Your task to perform on an android device: turn off priority inbox in the gmail app Image 0: 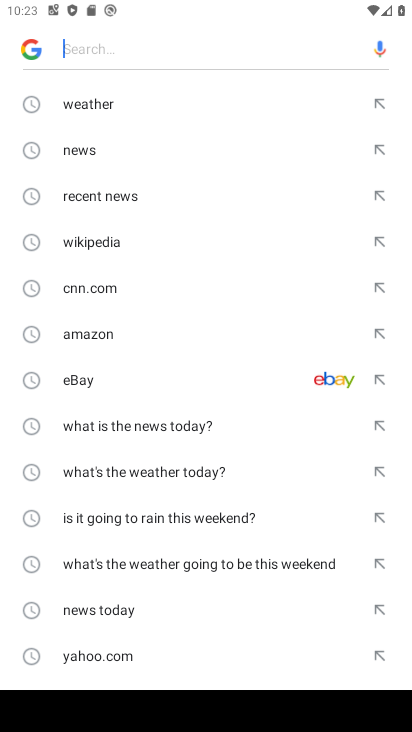
Step 0: press home button
Your task to perform on an android device: turn off priority inbox in the gmail app Image 1: 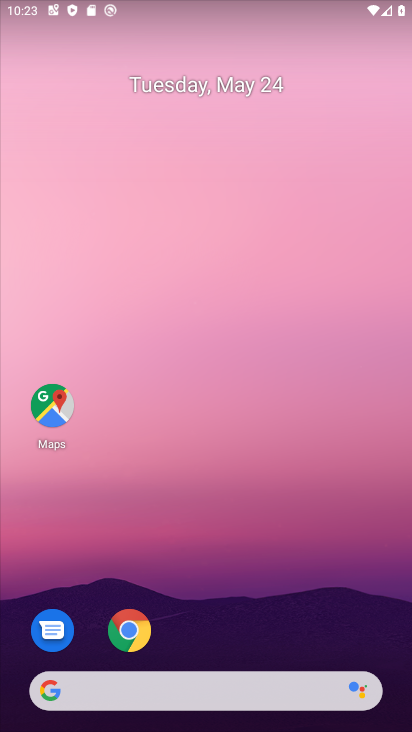
Step 1: drag from (219, 660) to (246, 70)
Your task to perform on an android device: turn off priority inbox in the gmail app Image 2: 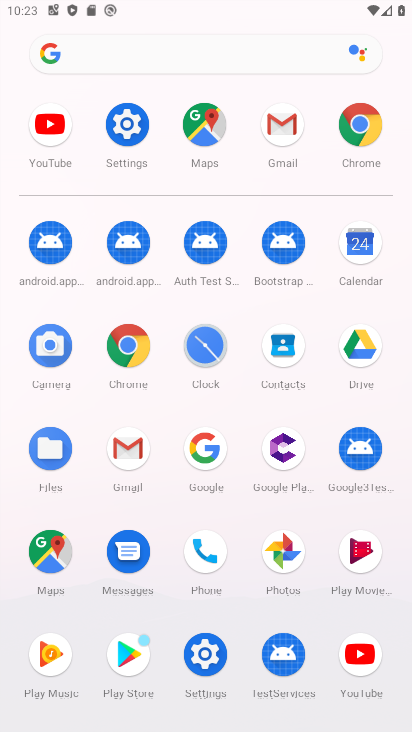
Step 2: click (279, 118)
Your task to perform on an android device: turn off priority inbox in the gmail app Image 3: 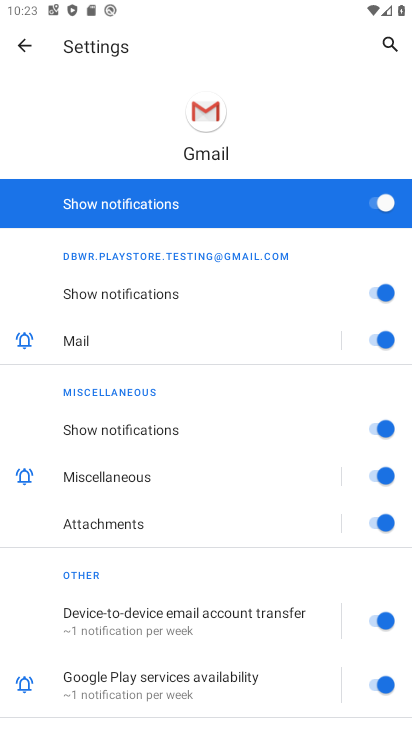
Step 3: click (28, 49)
Your task to perform on an android device: turn off priority inbox in the gmail app Image 4: 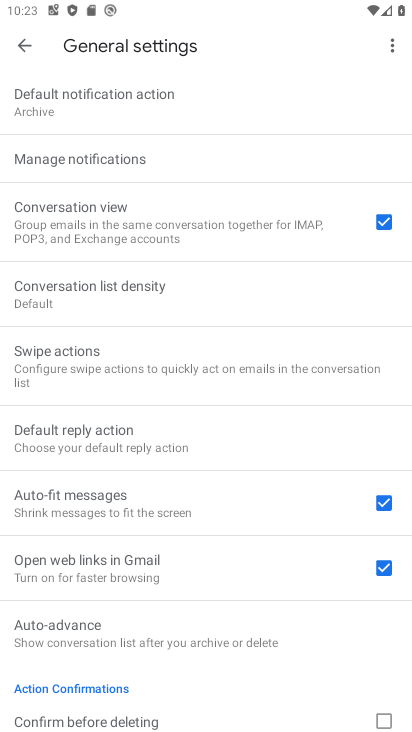
Step 4: click (28, 42)
Your task to perform on an android device: turn off priority inbox in the gmail app Image 5: 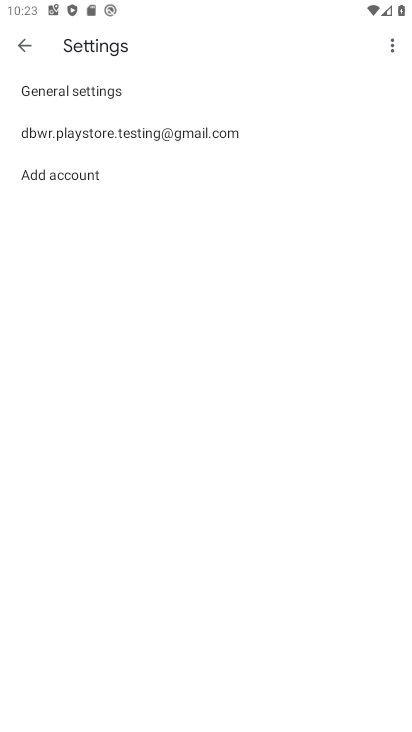
Step 5: click (236, 129)
Your task to perform on an android device: turn off priority inbox in the gmail app Image 6: 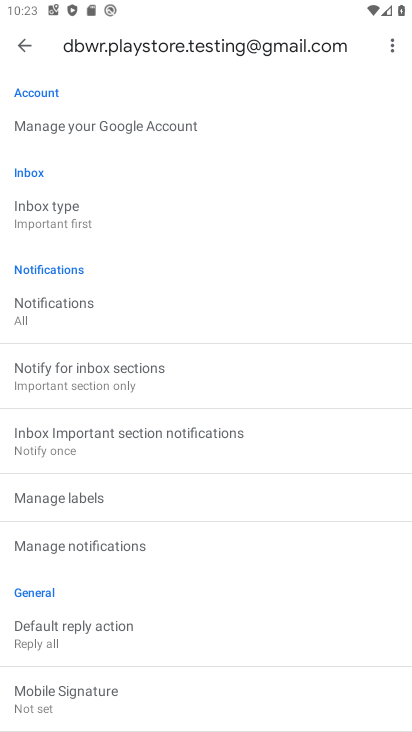
Step 6: click (93, 213)
Your task to perform on an android device: turn off priority inbox in the gmail app Image 7: 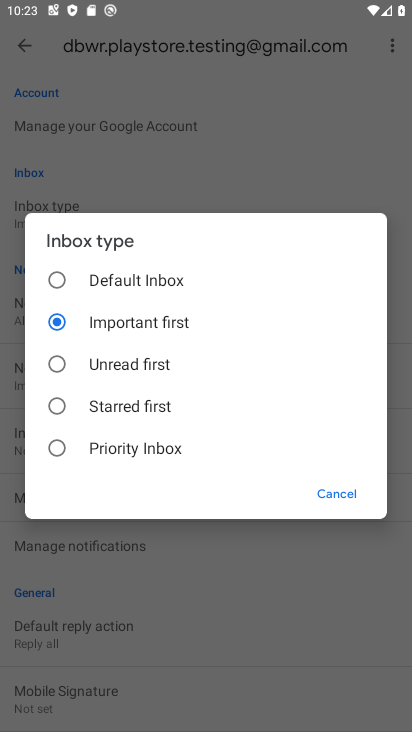
Step 7: click (58, 274)
Your task to perform on an android device: turn off priority inbox in the gmail app Image 8: 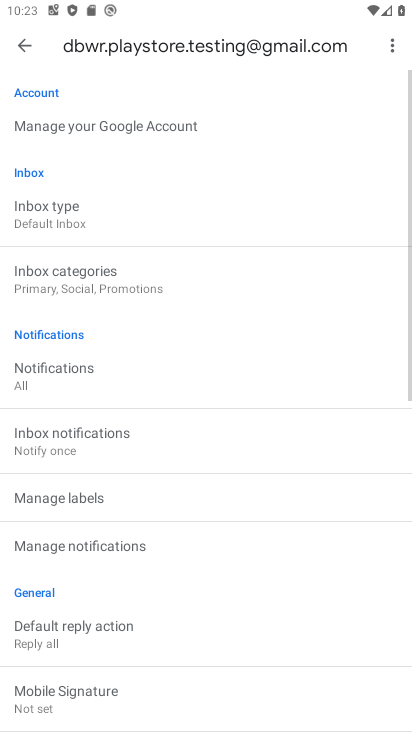
Step 8: task complete